Your task to perform on an android device: turn off location Image 0: 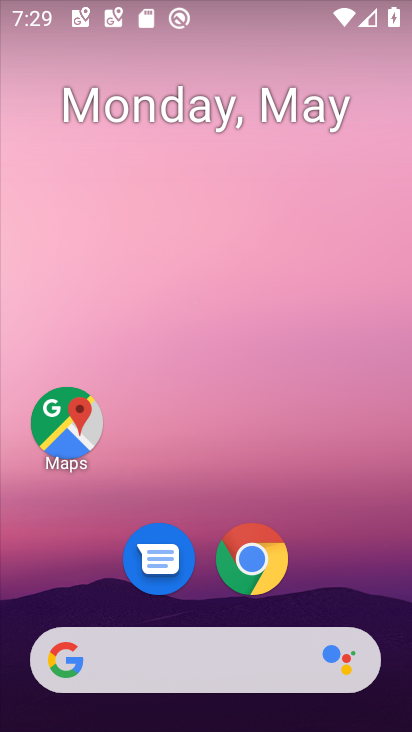
Step 0: drag from (373, 644) to (294, 127)
Your task to perform on an android device: turn off location Image 1: 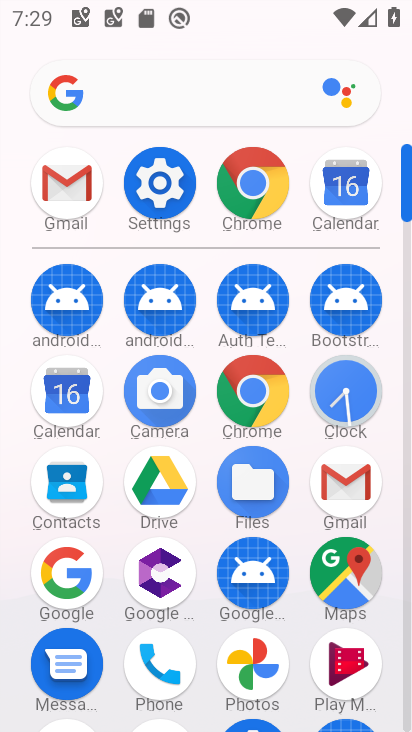
Step 1: click (143, 215)
Your task to perform on an android device: turn off location Image 2: 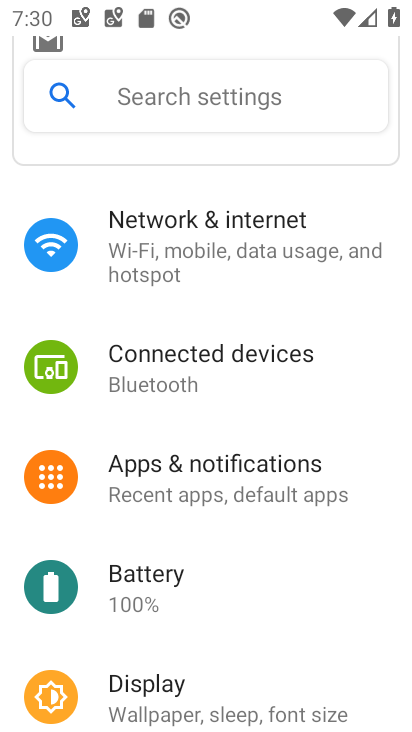
Step 2: drag from (175, 613) to (151, 199)
Your task to perform on an android device: turn off location Image 3: 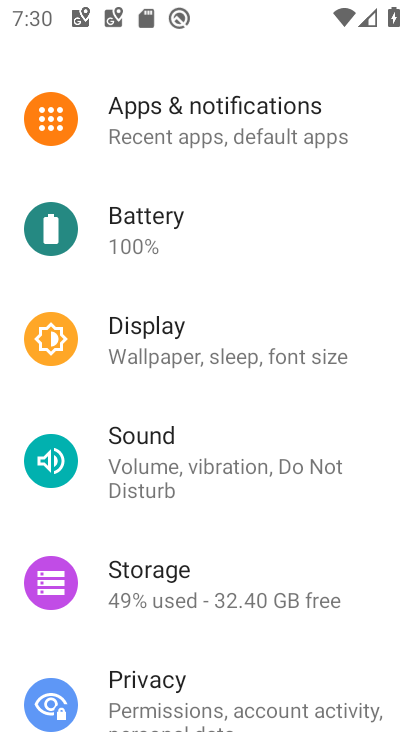
Step 3: drag from (136, 666) to (157, 214)
Your task to perform on an android device: turn off location Image 4: 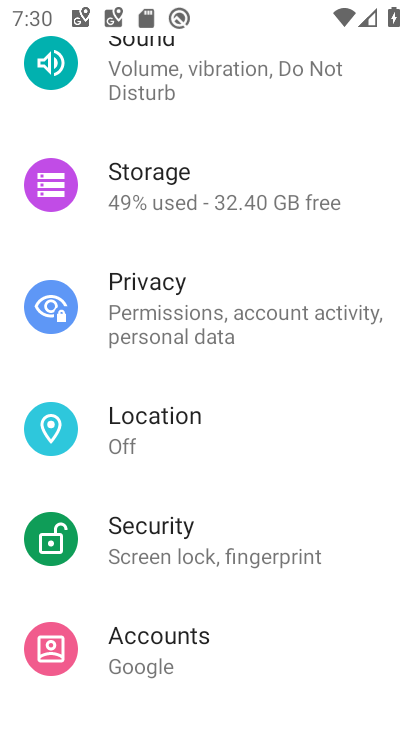
Step 4: click (212, 438)
Your task to perform on an android device: turn off location Image 5: 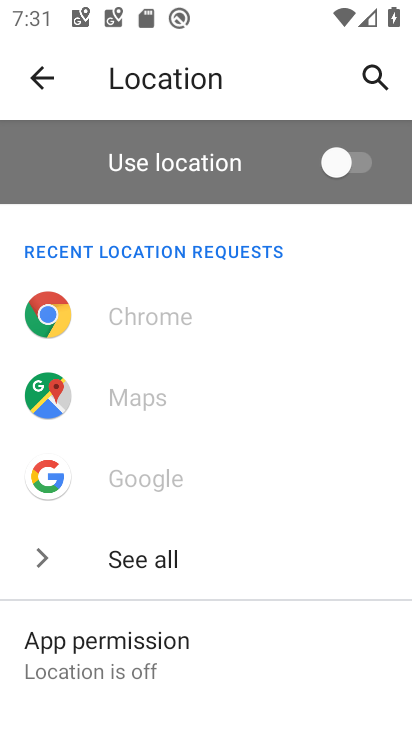
Step 5: task complete